Your task to perform on an android device: Open Yahoo.com Image 0: 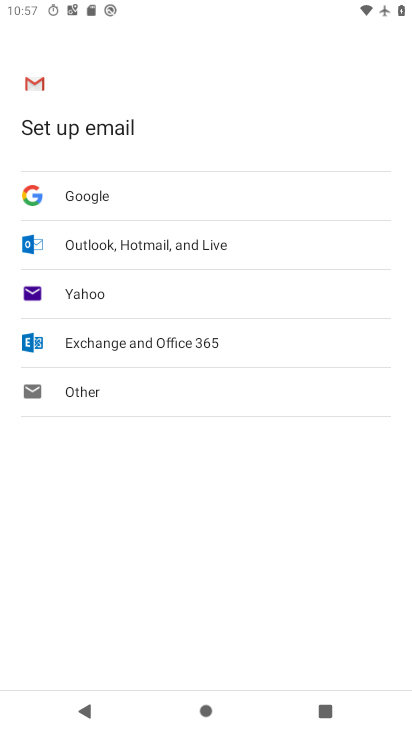
Step 0: press home button
Your task to perform on an android device: Open Yahoo.com Image 1: 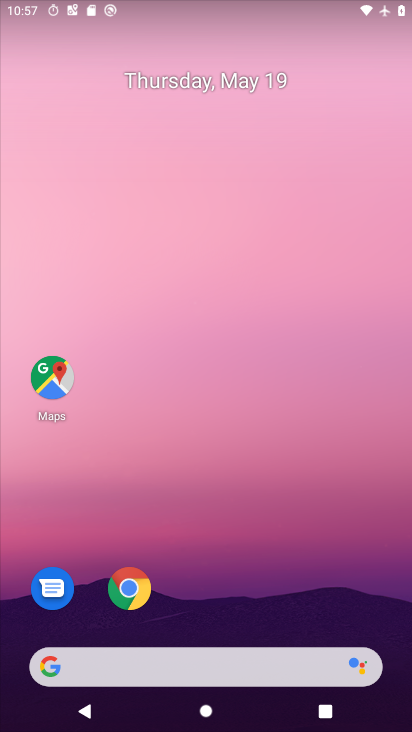
Step 1: click (130, 592)
Your task to perform on an android device: Open Yahoo.com Image 2: 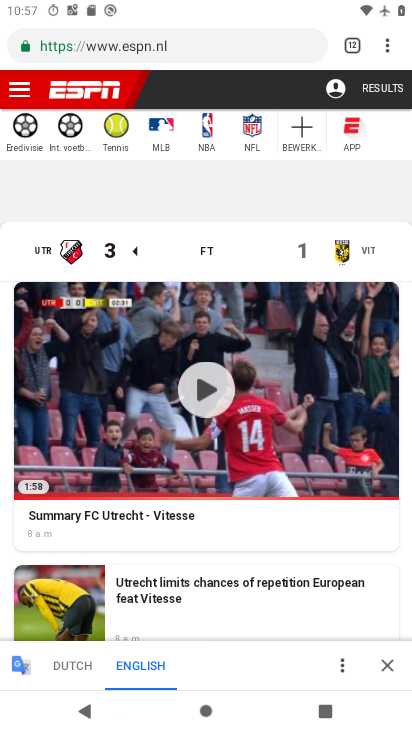
Step 2: drag from (390, 43) to (325, 99)
Your task to perform on an android device: Open Yahoo.com Image 3: 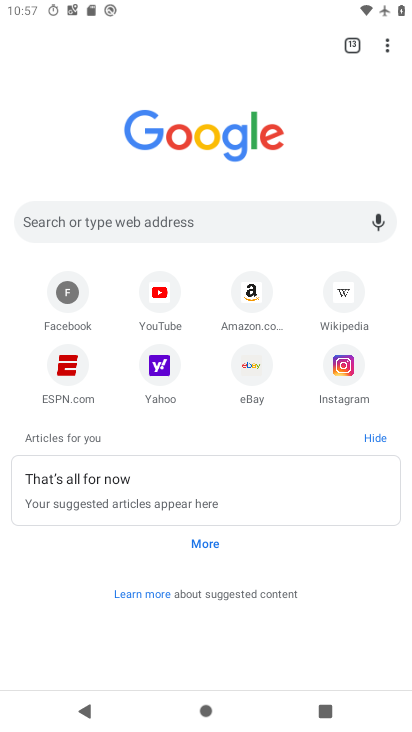
Step 3: click (160, 367)
Your task to perform on an android device: Open Yahoo.com Image 4: 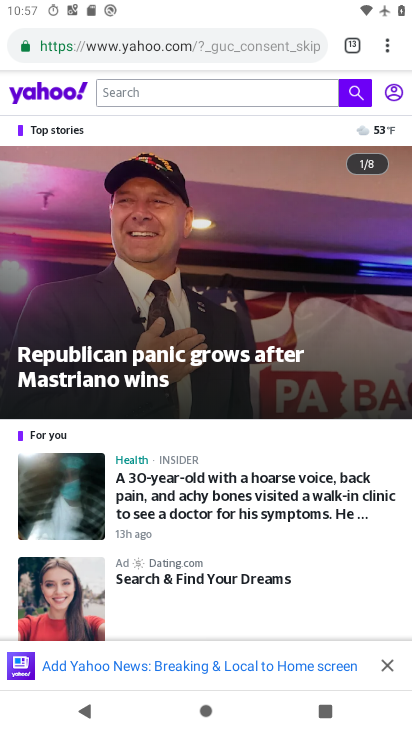
Step 4: task complete